Your task to perform on an android device: turn off improve location accuracy Image 0: 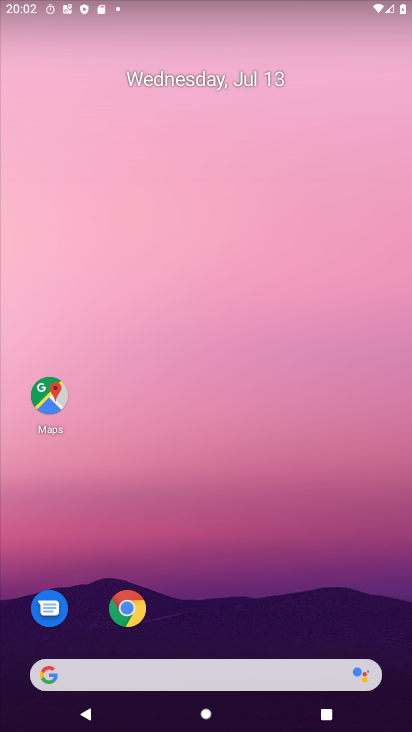
Step 0: drag from (199, 642) to (213, 114)
Your task to perform on an android device: turn off improve location accuracy Image 1: 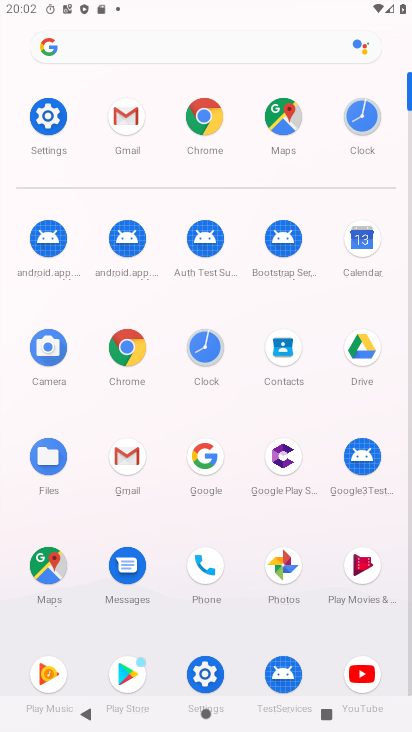
Step 1: click (49, 109)
Your task to perform on an android device: turn off improve location accuracy Image 2: 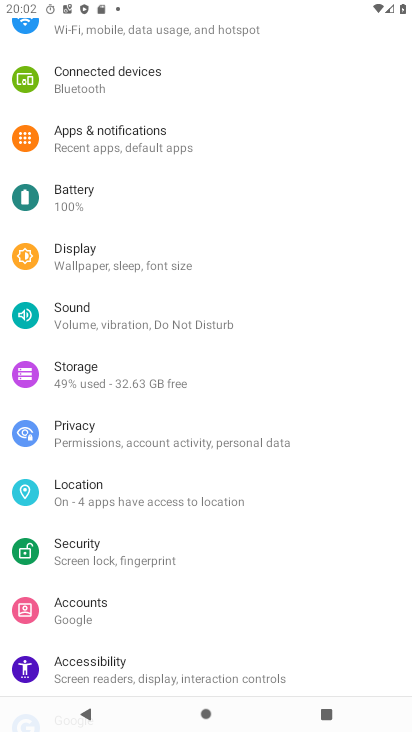
Step 2: click (135, 486)
Your task to perform on an android device: turn off improve location accuracy Image 3: 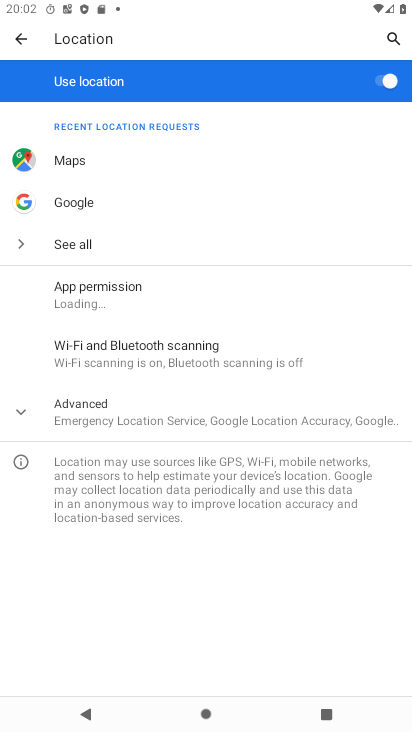
Step 3: click (119, 430)
Your task to perform on an android device: turn off improve location accuracy Image 4: 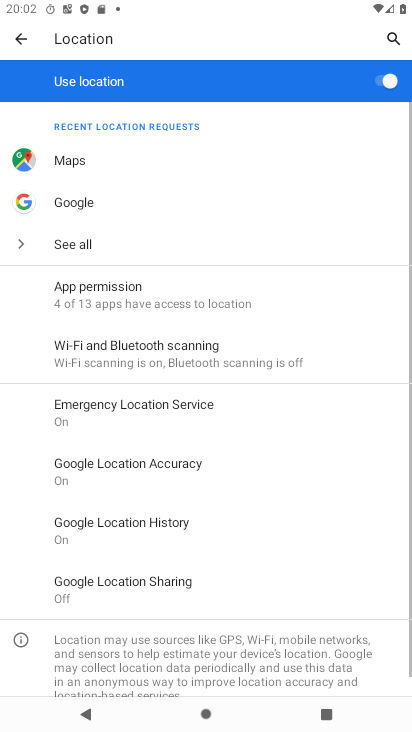
Step 4: click (120, 464)
Your task to perform on an android device: turn off improve location accuracy Image 5: 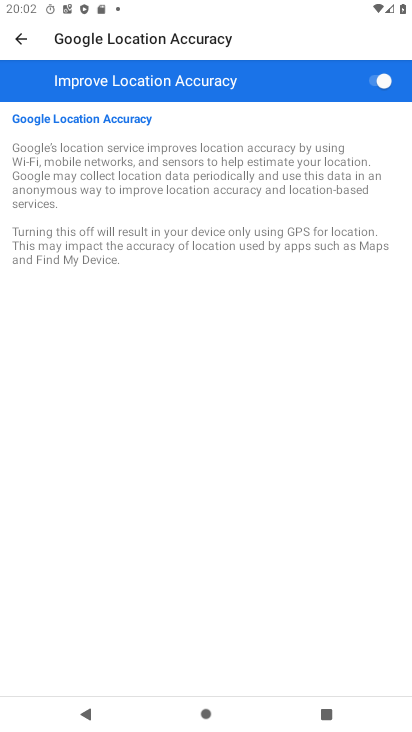
Step 5: click (370, 80)
Your task to perform on an android device: turn off improve location accuracy Image 6: 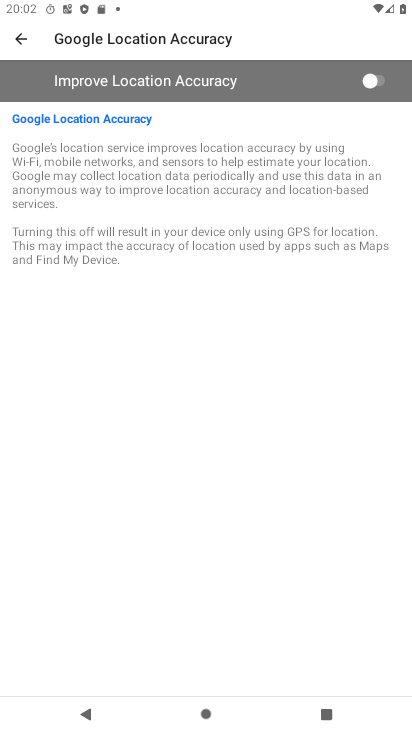
Step 6: task complete